Your task to perform on an android device: Open Google Chrome and open the bookmarks view Image 0: 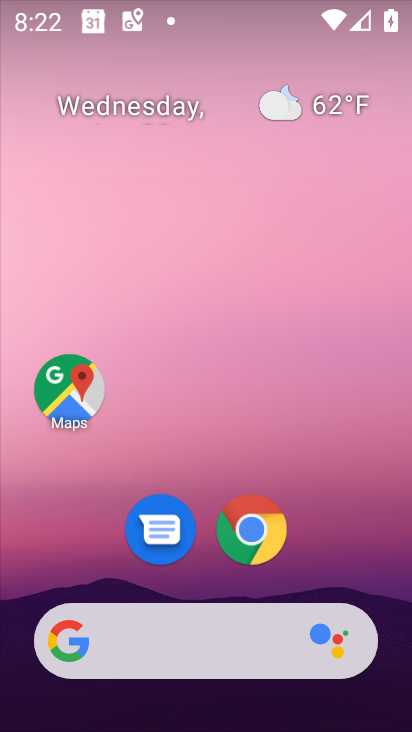
Step 0: drag from (187, 586) to (198, 192)
Your task to perform on an android device: Open Google Chrome and open the bookmarks view Image 1: 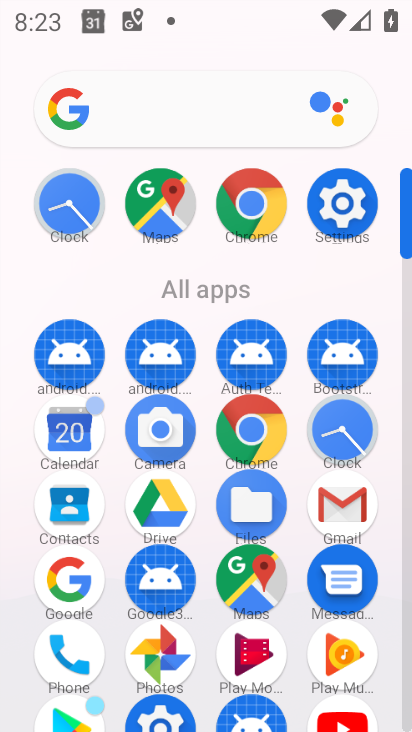
Step 1: click (246, 428)
Your task to perform on an android device: Open Google Chrome and open the bookmarks view Image 2: 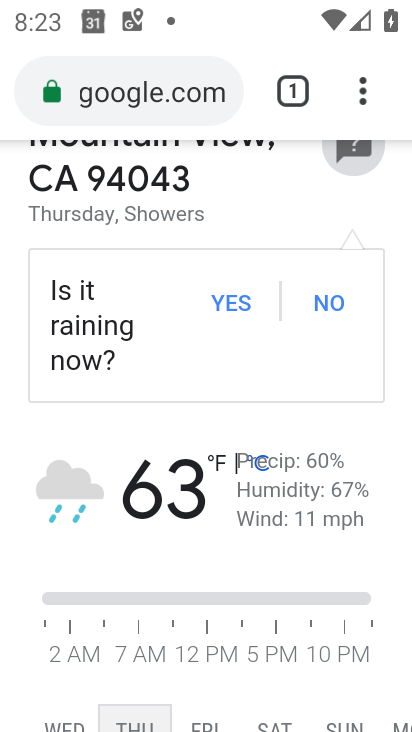
Step 2: click (362, 88)
Your task to perform on an android device: Open Google Chrome and open the bookmarks view Image 3: 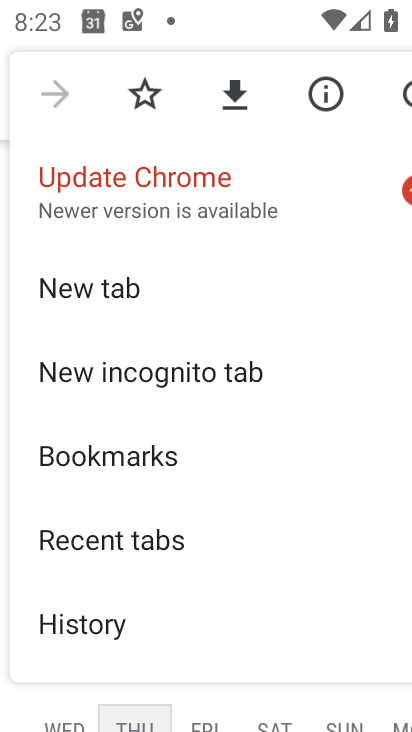
Step 3: click (103, 475)
Your task to perform on an android device: Open Google Chrome and open the bookmarks view Image 4: 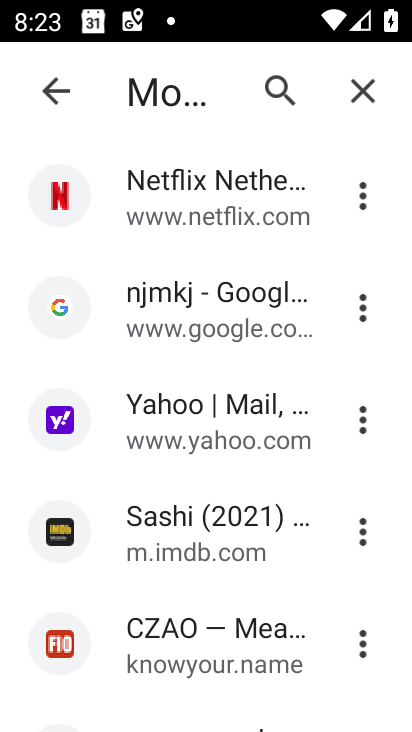
Step 4: task complete